Your task to perform on an android device: turn on priority inbox in the gmail app Image 0: 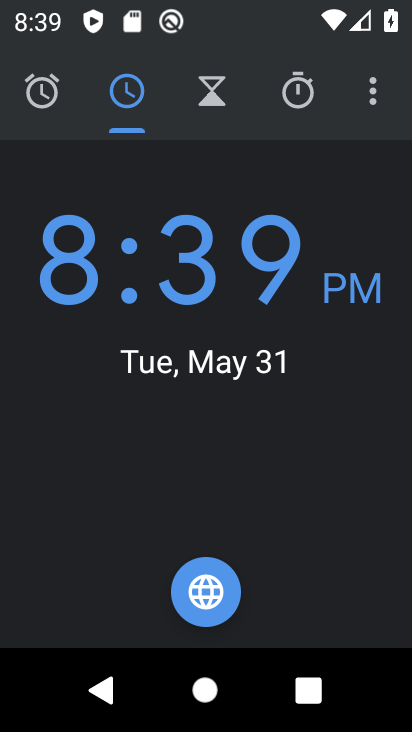
Step 0: press home button
Your task to perform on an android device: turn on priority inbox in the gmail app Image 1: 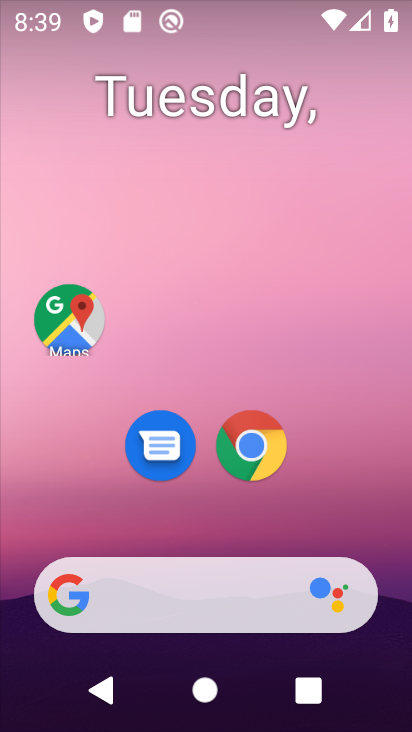
Step 1: drag from (349, 479) to (353, 34)
Your task to perform on an android device: turn on priority inbox in the gmail app Image 2: 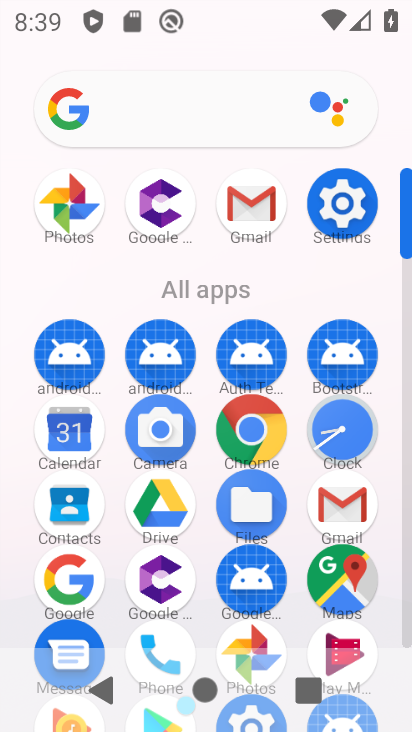
Step 2: click (258, 197)
Your task to perform on an android device: turn on priority inbox in the gmail app Image 3: 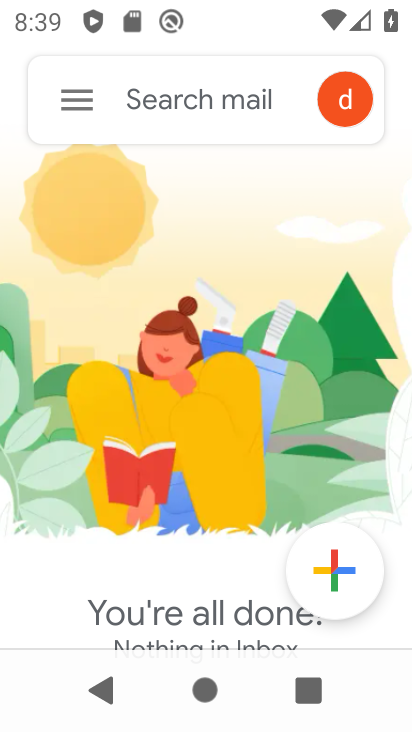
Step 3: click (85, 112)
Your task to perform on an android device: turn on priority inbox in the gmail app Image 4: 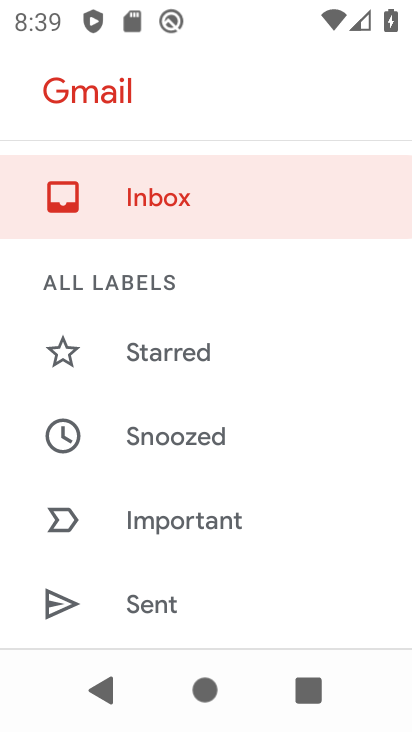
Step 4: drag from (239, 549) to (281, 91)
Your task to perform on an android device: turn on priority inbox in the gmail app Image 5: 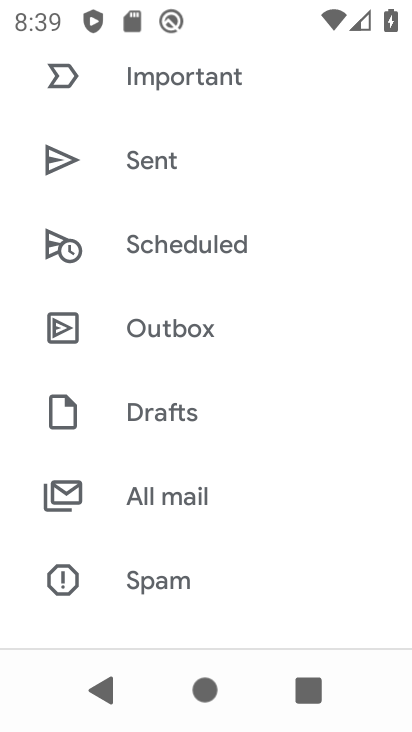
Step 5: drag from (199, 526) to (262, 111)
Your task to perform on an android device: turn on priority inbox in the gmail app Image 6: 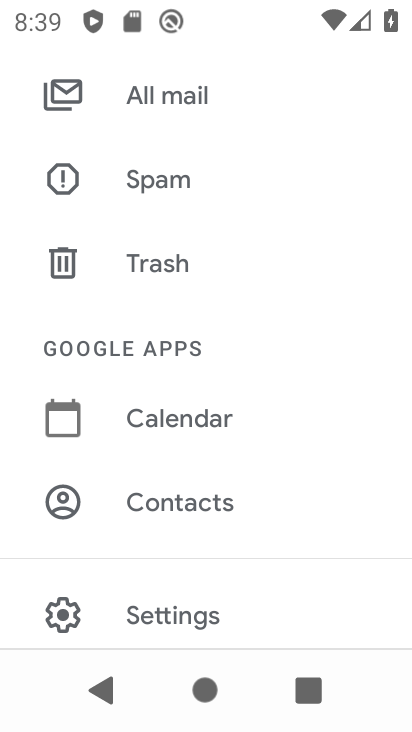
Step 6: click (183, 614)
Your task to perform on an android device: turn on priority inbox in the gmail app Image 7: 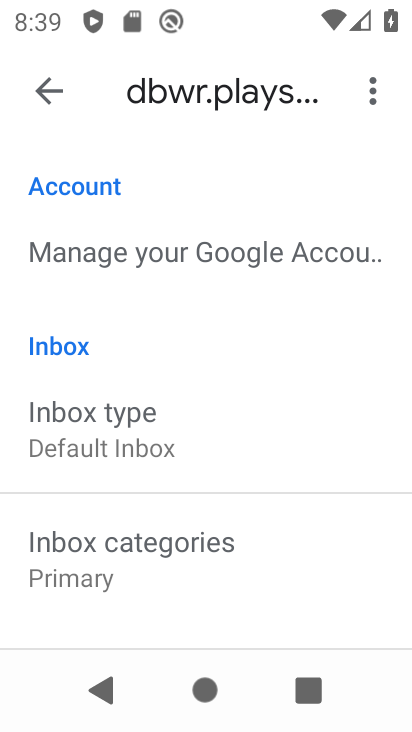
Step 7: click (182, 445)
Your task to perform on an android device: turn on priority inbox in the gmail app Image 8: 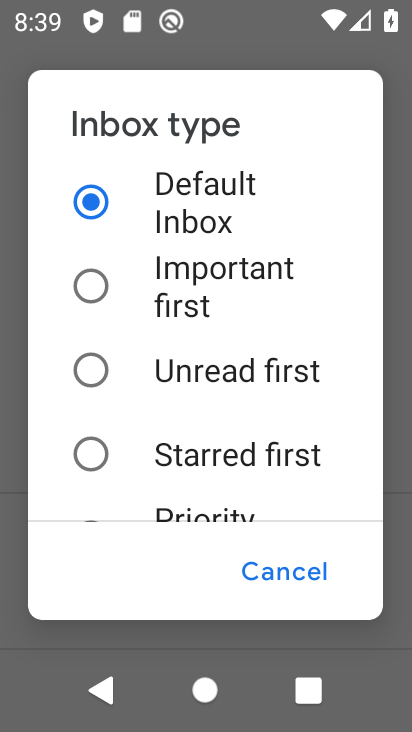
Step 8: drag from (183, 427) to (182, 179)
Your task to perform on an android device: turn on priority inbox in the gmail app Image 9: 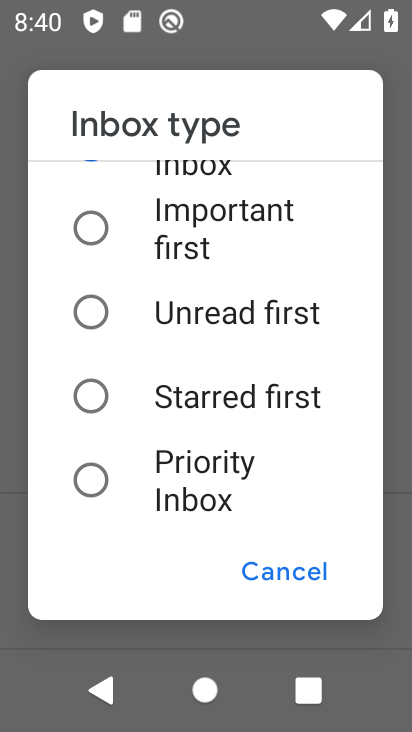
Step 9: click (182, 466)
Your task to perform on an android device: turn on priority inbox in the gmail app Image 10: 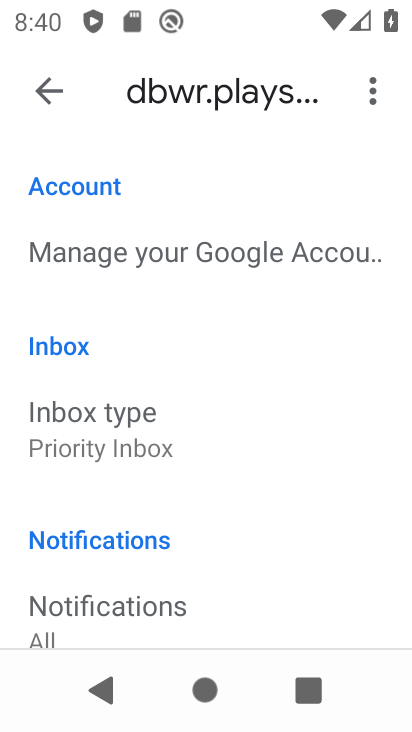
Step 10: task complete